Your task to perform on an android device: turn on priority inbox in the gmail app Image 0: 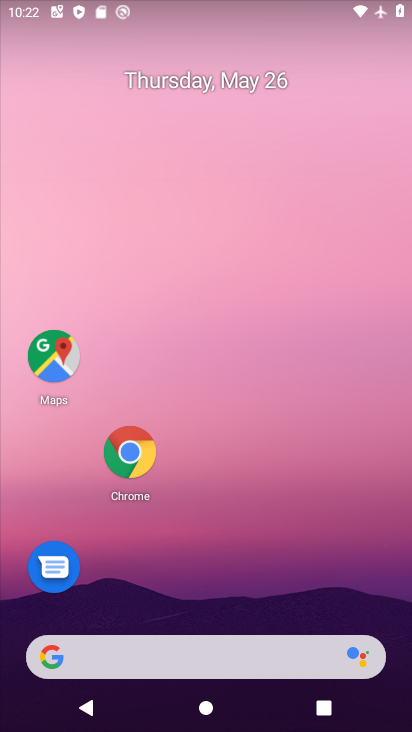
Step 0: drag from (126, 645) to (251, 74)
Your task to perform on an android device: turn on priority inbox in the gmail app Image 1: 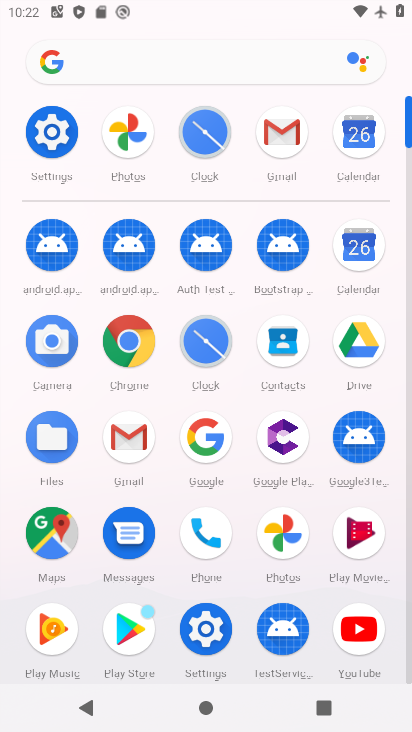
Step 1: click (283, 136)
Your task to perform on an android device: turn on priority inbox in the gmail app Image 2: 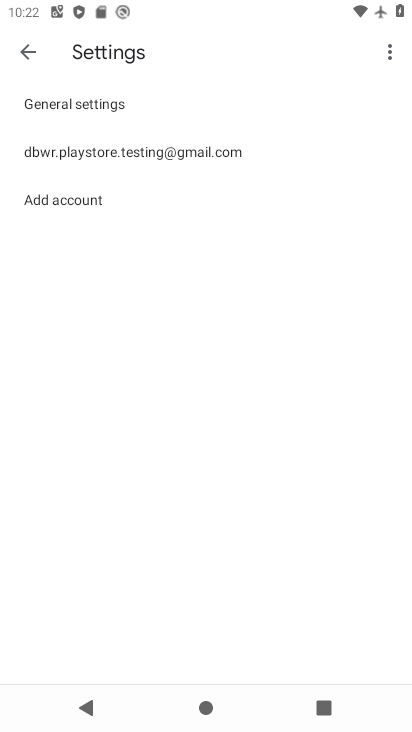
Step 2: click (177, 155)
Your task to perform on an android device: turn on priority inbox in the gmail app Image 3: 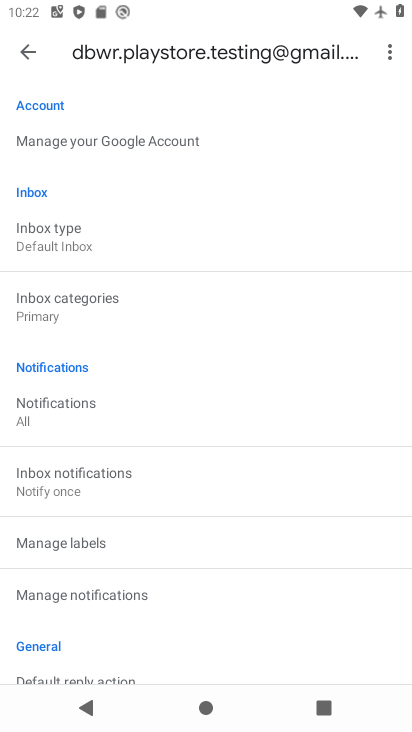
Step 3: click (72, 243)
Your task to perform on an android device: turn on priority inbox in the gmail app Image 4: 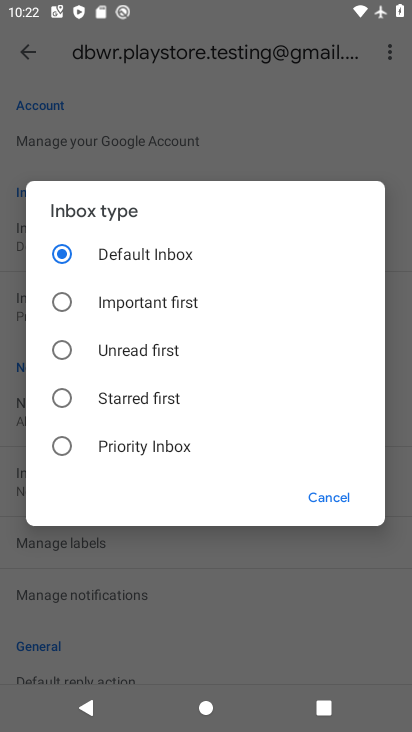
Step 4: click (63, 449)
Your task to perform on an android device: turn on priority inbox in the gmail app Image 5: 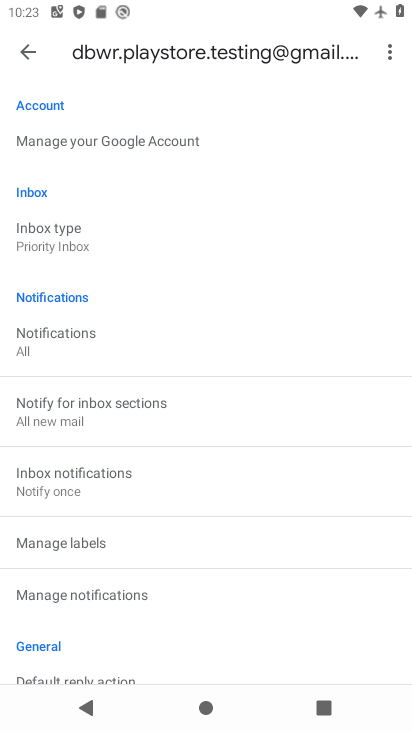
Step 5: task complete